Your task to perform on an android device: Go to location settings Image 0: 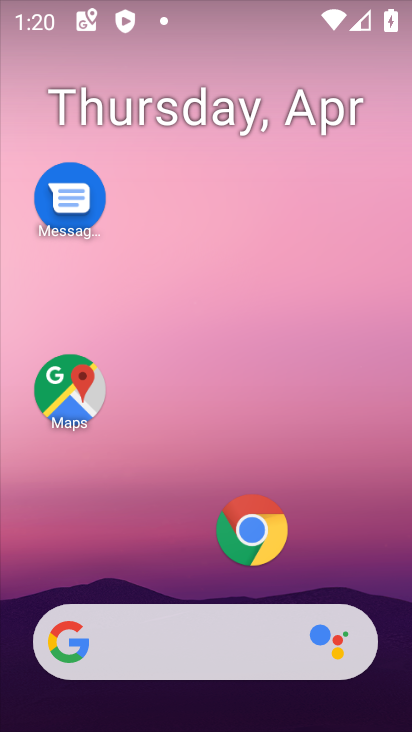
Step 0: drag from (211, 588) to (108, 0)
Your task to perform on an android device: Go to location settings Image 1: 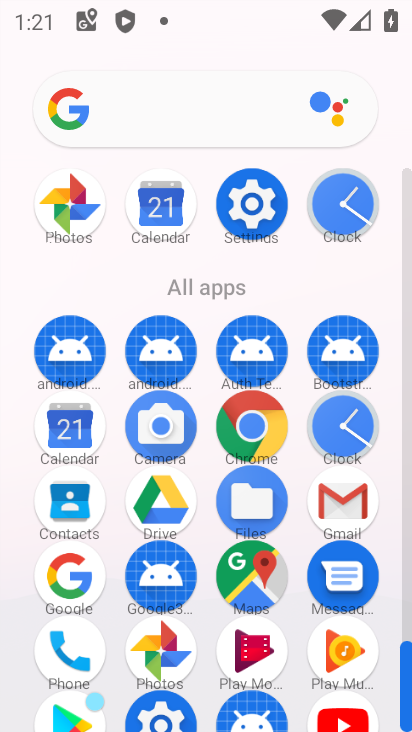
Step 1: click (269, 205)
Your task to perform on an android device: Go to location settings Image 2: 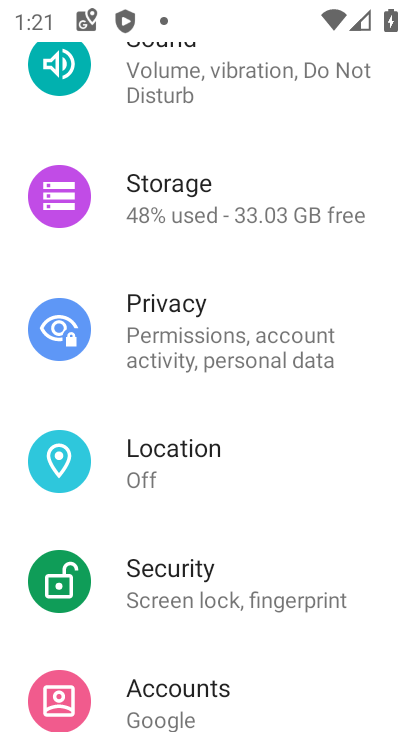
Step 2: click (149, 445)
Your task to perform on an android device: Go to location settings Image 3: 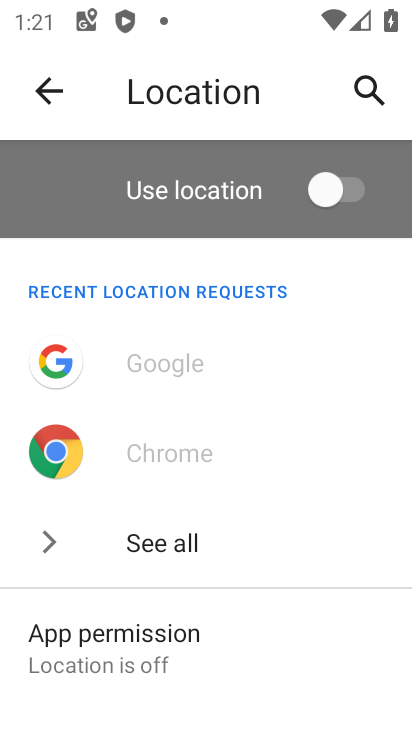
Step 3: drag from (287, 586) to (261, 426)
Your task to perform on an android device: Go to location settings Image 4: 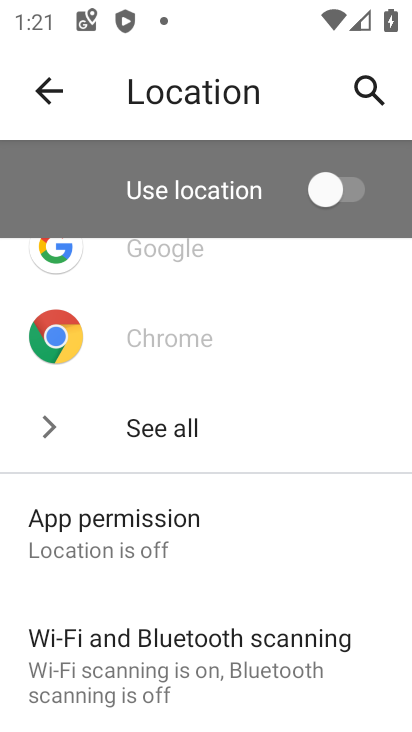
Step 4: drag from (220, 628) to (176, 319)
Your task to perform on an android device: Go to location settings Image 5: 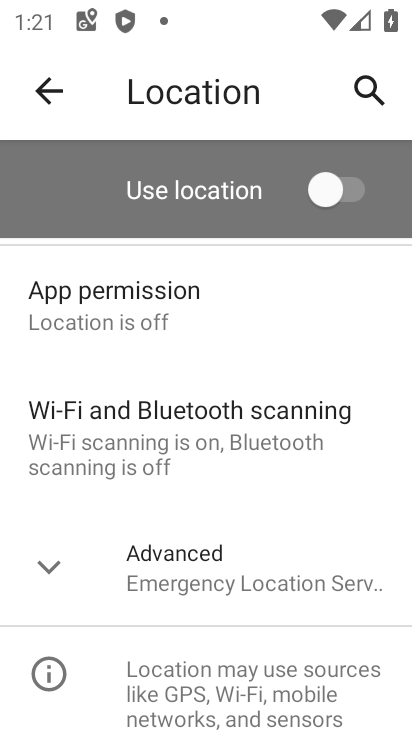
Step 5: click (173, 430)
Your task to perform on an android device: Go to location settings Image 6: 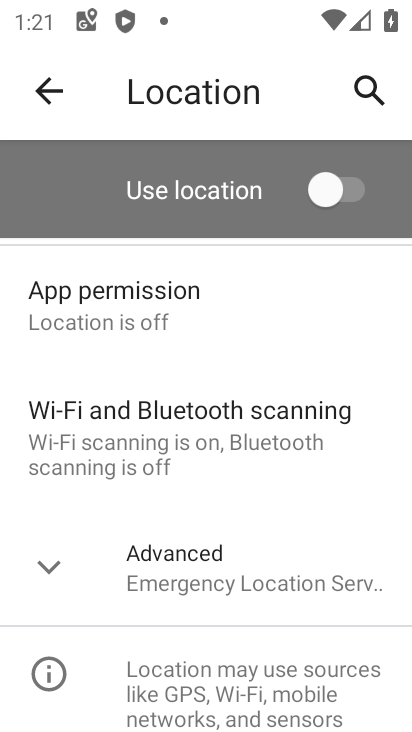
Step 6: click (174, 560)
Your task to perform on an android device: Go to location settings Image 7: 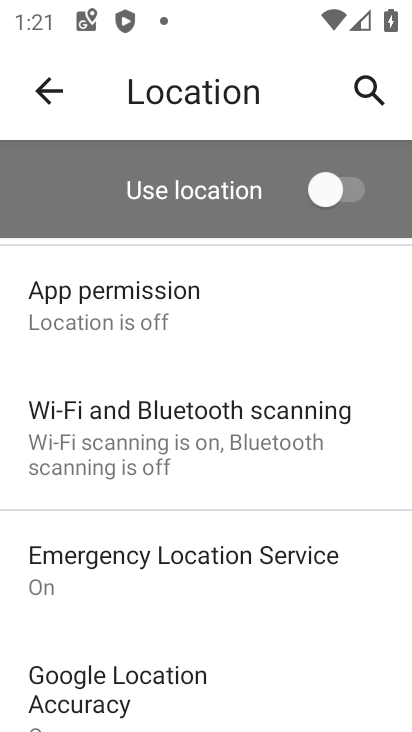
Step 7: task complete